Your task to perform on an android device: see tabs open on other devices in the chrome app Image 0: 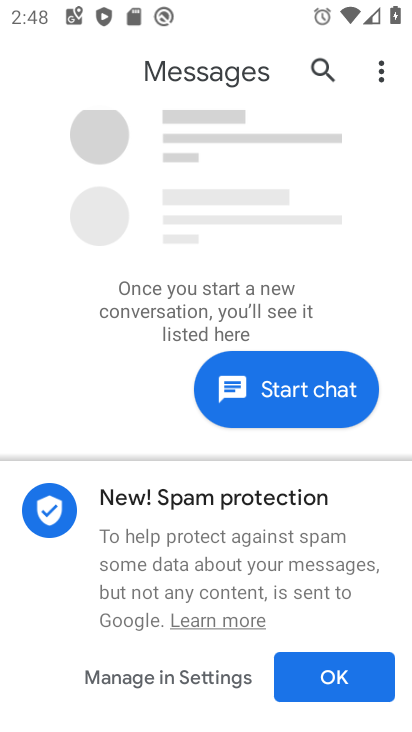
Step 0: press home button
Your task to perform on an android device: see tabs open on other devices in the chrome app Image 1: 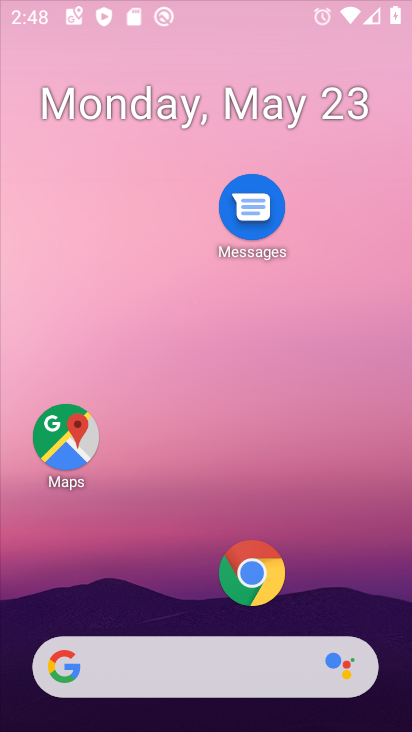
Step 1: drag from (228, 690) to (275, 152)
Your task to perform on an android device: see tabs open on other devices in the chrome app Image 2: 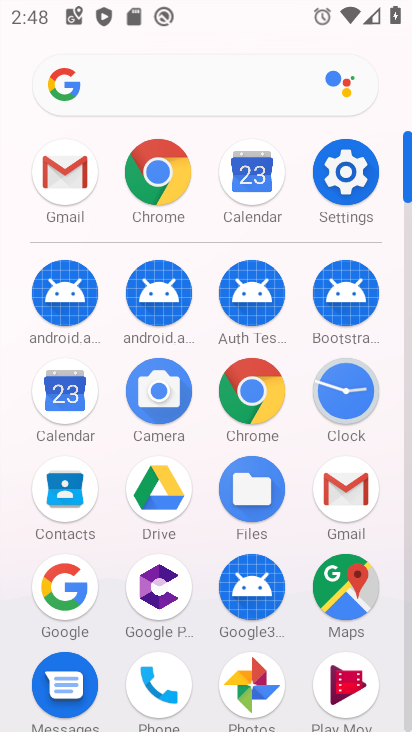
Step 2: click (266, 375)
Your task to perform on an android device: see tabs open on other devices in the chrome app Image 3: 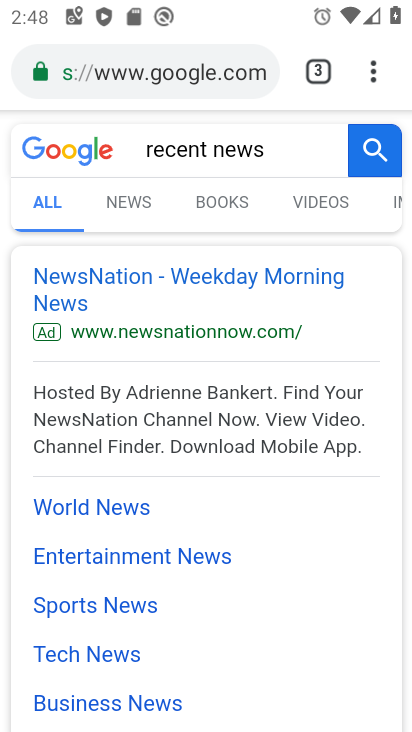
Step 3: task complete